Your task to perform on an android device: snooze an email in the gmail app Image 0: 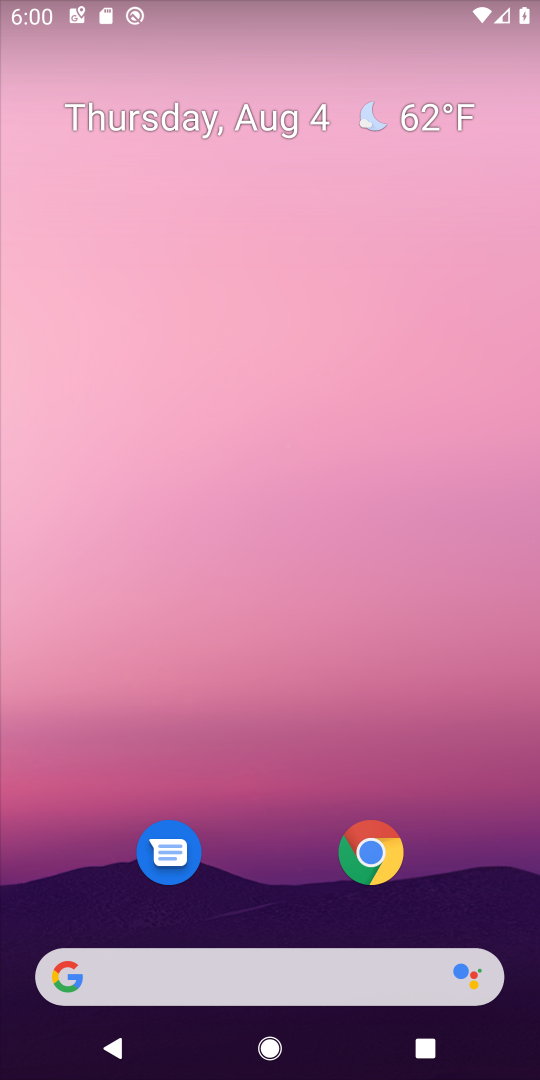
Step 0: drag from (253, 798) to (271, 178)
Your task to perform on an android device: snooze an email in the gmail app Image 1: 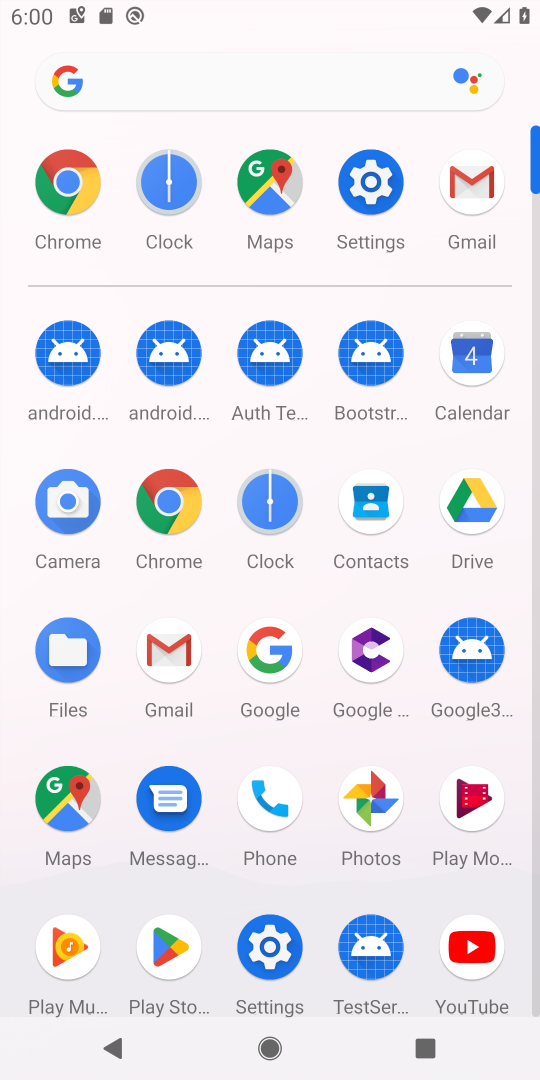
Step 1: click (166, 645)
Your task to perform on an android device: snooze an email in the gmail app Image 2: 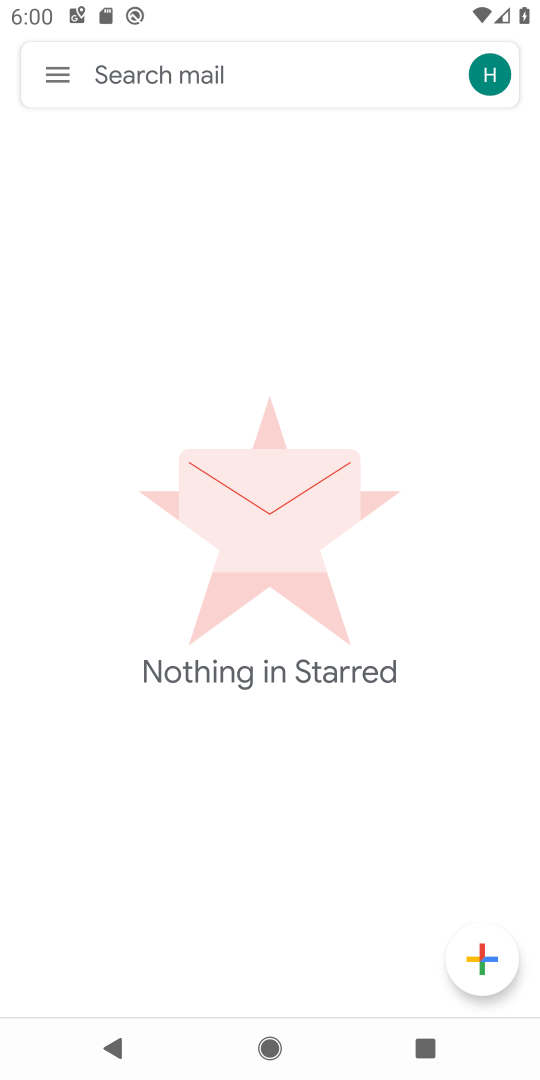
Step 2: click (52, 72)
Your task to perform on an android device: snooze an email in the gmail app Image 3: 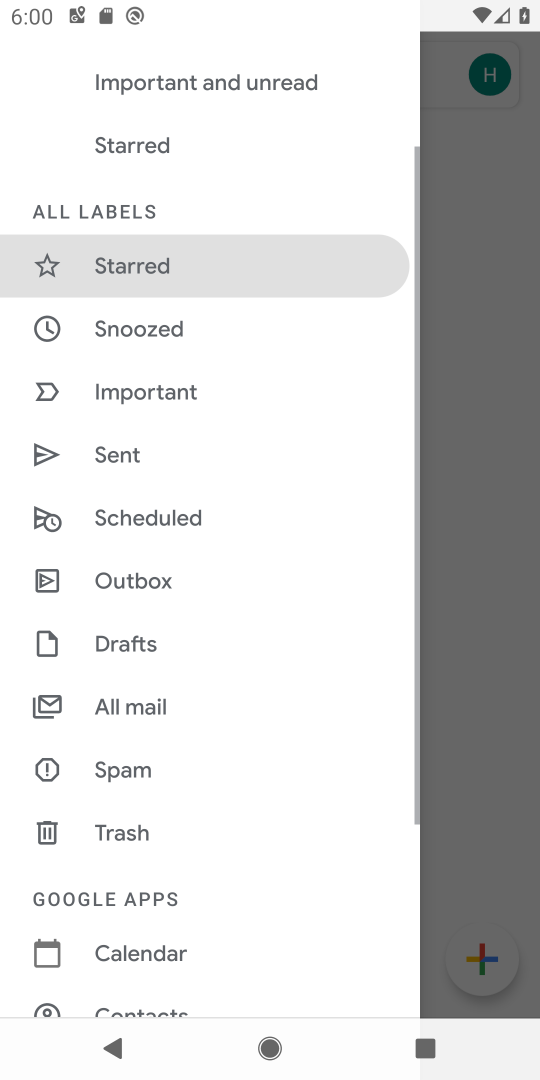
Step 3: drag from (144, 160) to (167, 983)
Your task to perform on an android device: snooze an email in the gmail app Image 4: 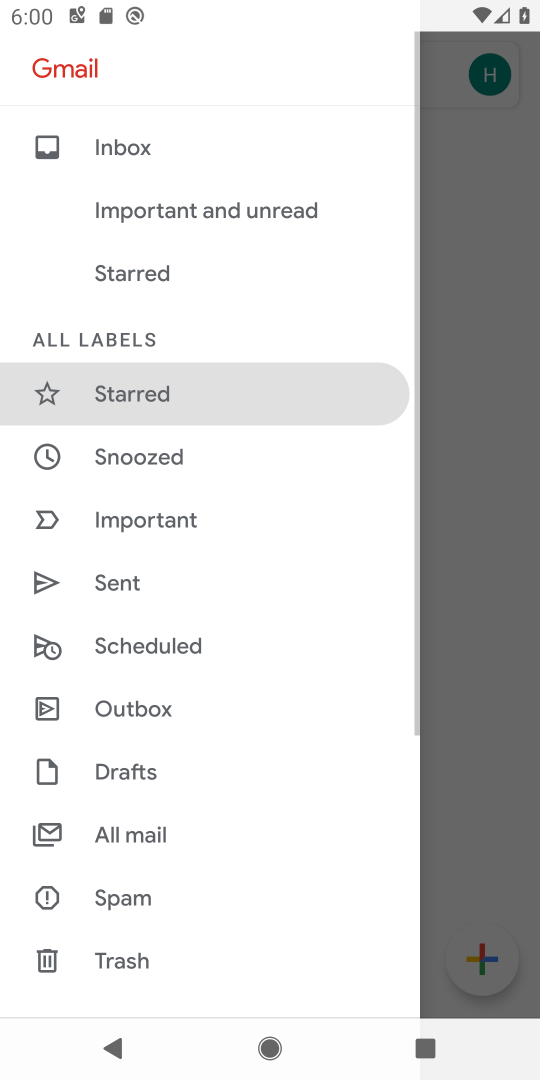
Step 4: click (129, 148)
Your task to perform on an android device: snooze an email in the gmail app Image 5: 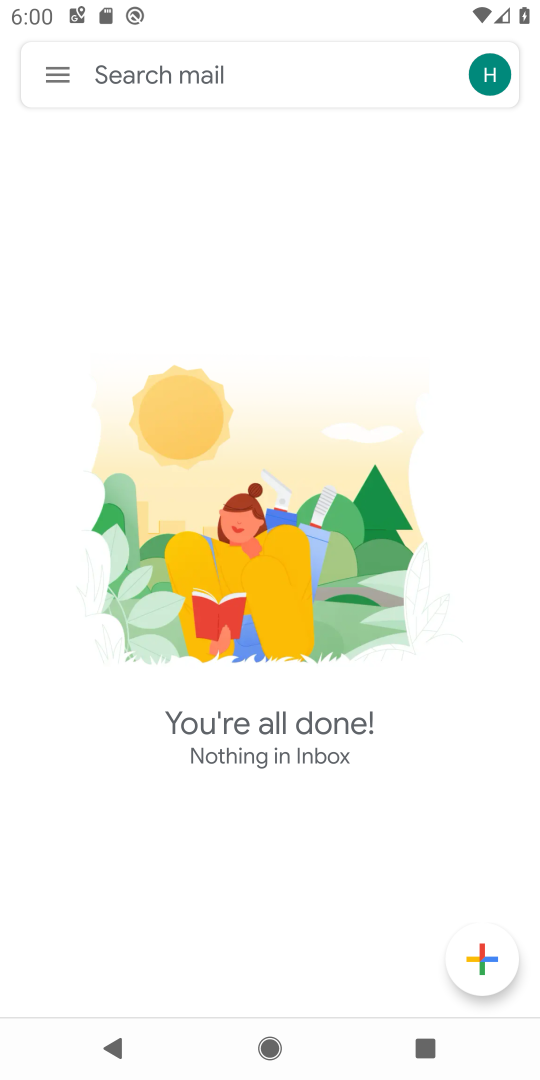
Step 5: task complete